Your task to perform on an android device: Go to display settings Image 0: 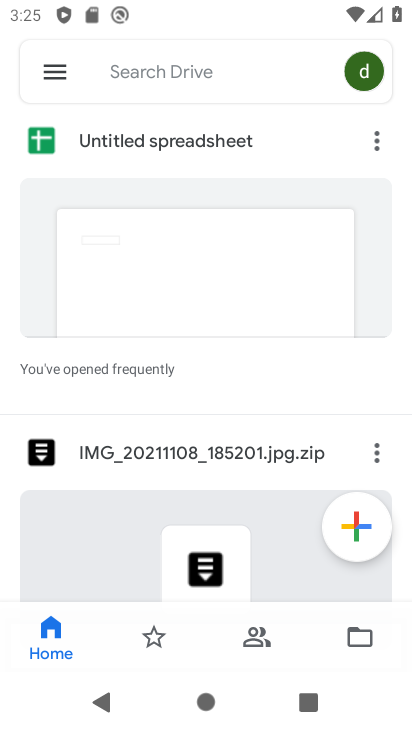
Step 0: press home button
Your task to perform on an android device: Go to display settings Image 1: 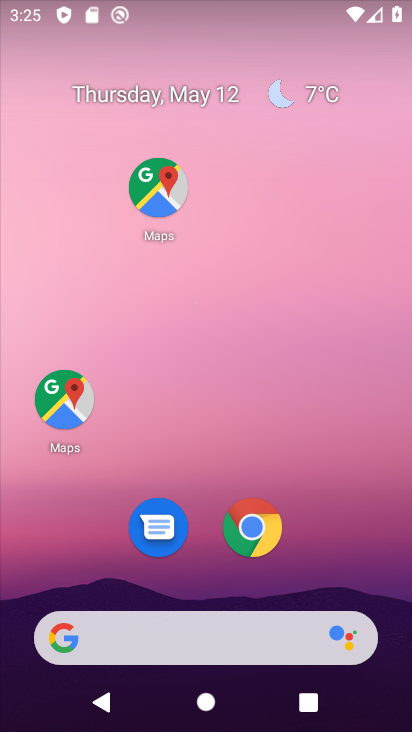
Step 1: drag from (200, 591) to (72, 7)
Your task to perform on an android device: Go to display settings Image 2: 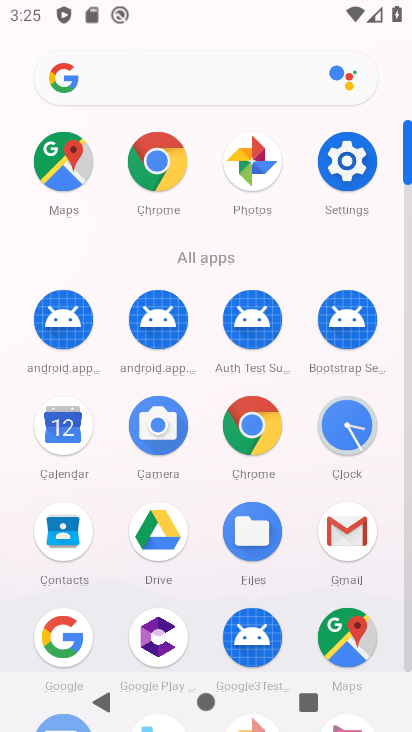
Step 2: click (346, 161)
Your task to perform on an android device: Go to display settings Image 3: 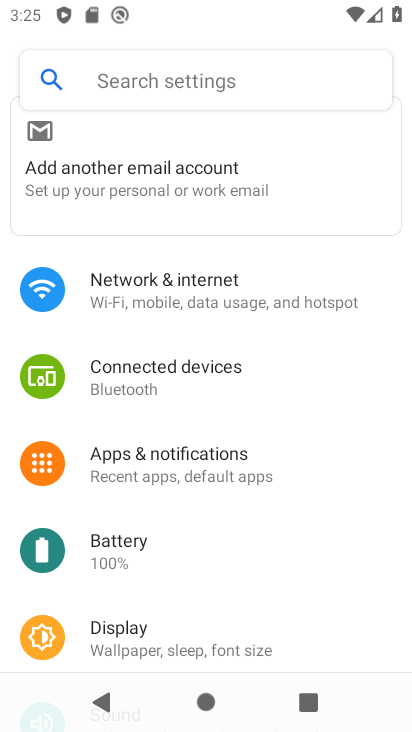
Step 3: click (190, 292)
Your task to perform on an android device: Go to display settings Image 4: 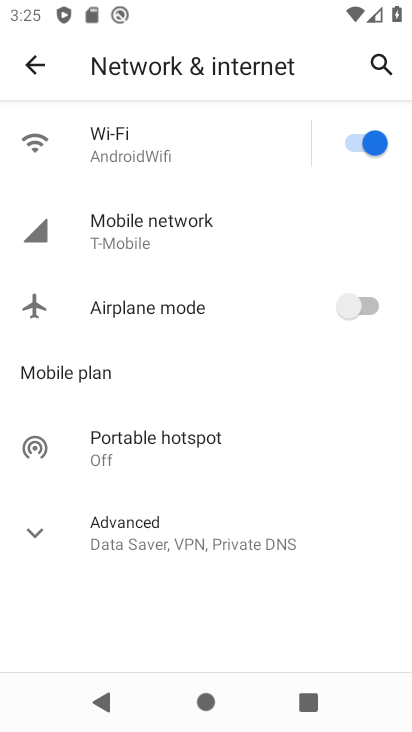
Step 4: click (41, 77)
Your task to perform on an android device: Go to display settings Image 5: 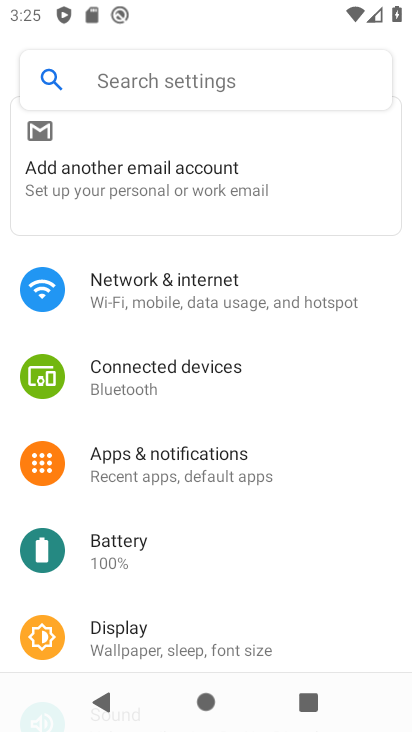
Step 5: click (164, 630)
Your task to perform on an android device: Go to display settings Image 6: 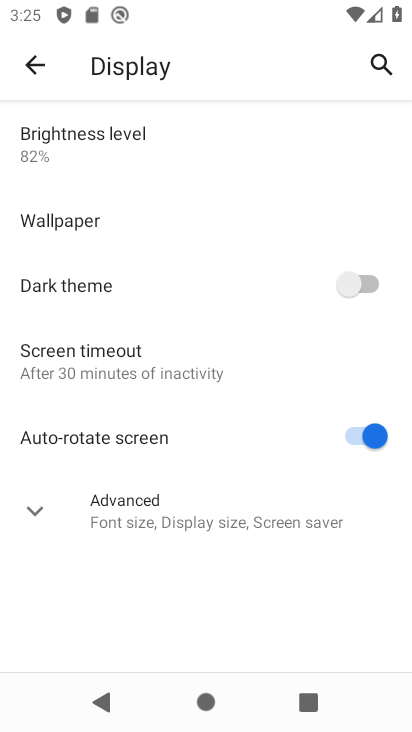
Step 6: click (218, 526)
Your task to perform on an android device: Go to display settings Image 7: 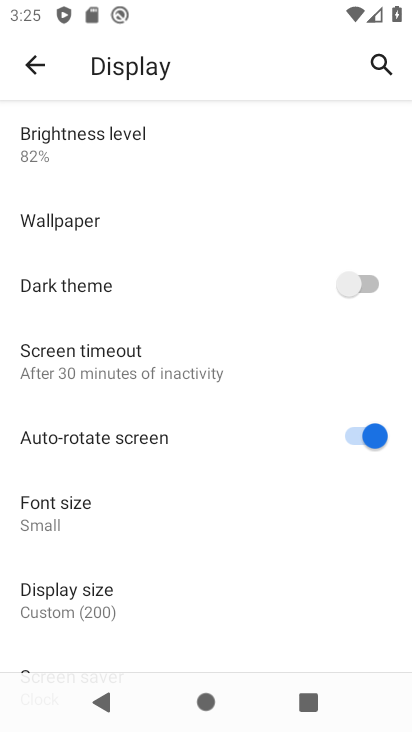
Step 7: task complete